Your task to perform on an android device: turn on bluetooth scan Image 0: 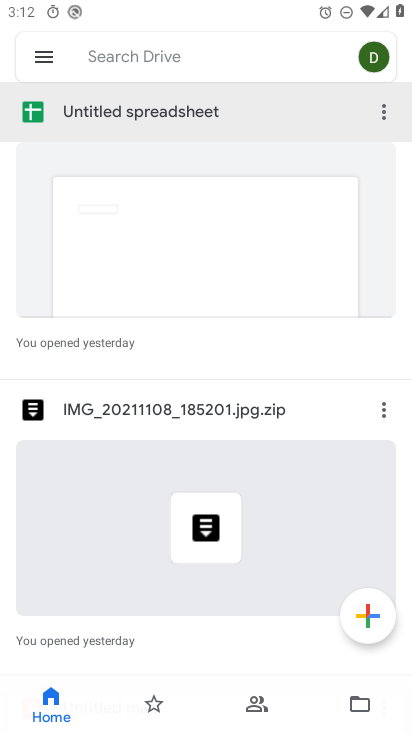
Step 0: press home button
Your task to perform on an android device: turn on bluetooth scan Image 1: 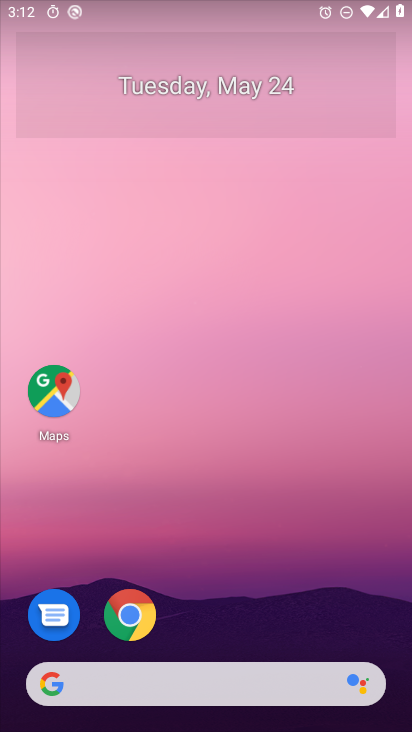
Step 1: drag from (174, 660) to (271, 89)
Your task to perform on an android device: turn on bluetooth scan Image 2: 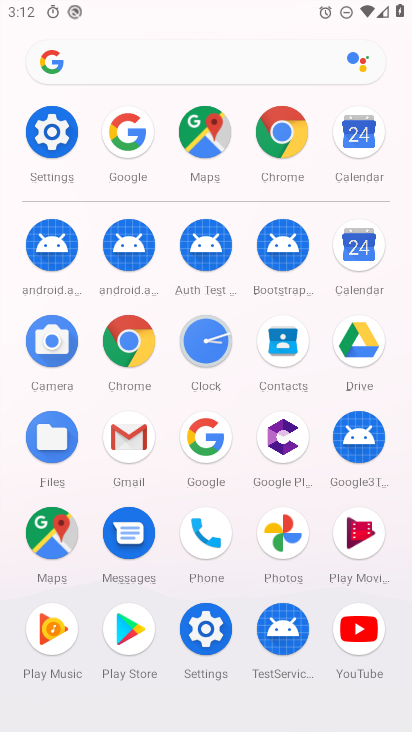
Step 2: click (55, 133)
Your task to perform on an android device: turn on bluetooth scan Image 3: 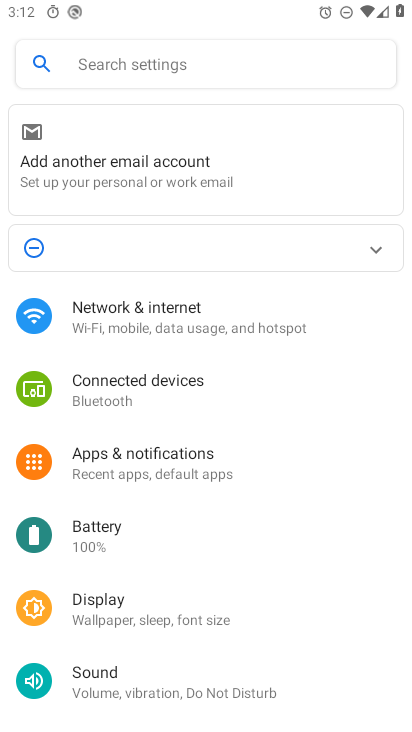
Step 3: drag from (151, 683) to (237, 332)
Your task to perform on an android device: turn on bluetooth scan Image 4: 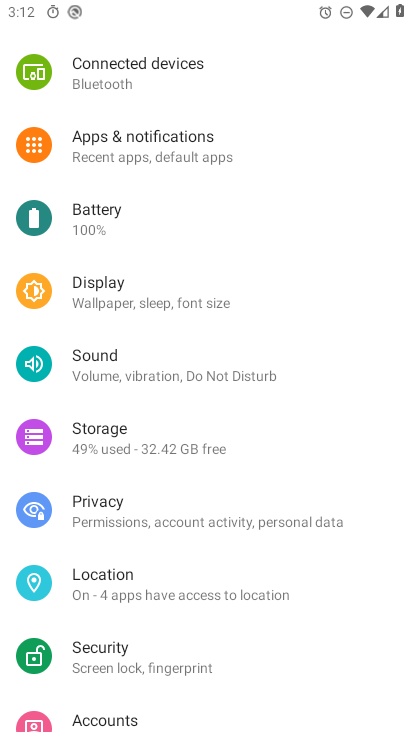
Step 4: drag from (99, 708) to (176, 234)
Your task to perform on an android device: turn on bluetooth scan Image 5: 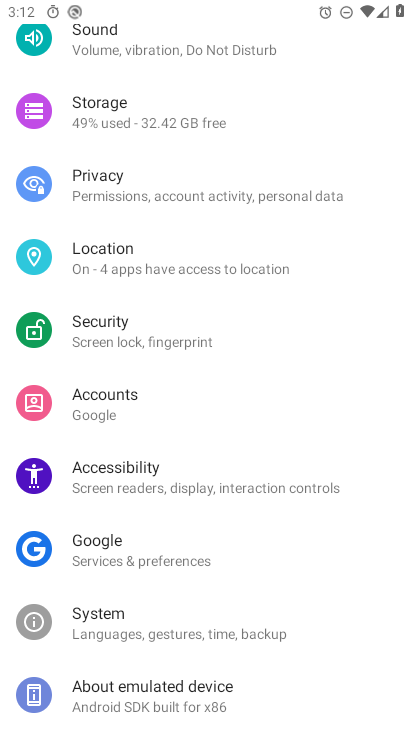
Step 5: click (107, 251)
Your task to perform on an android device: turn on bluetooth scan Image 6: 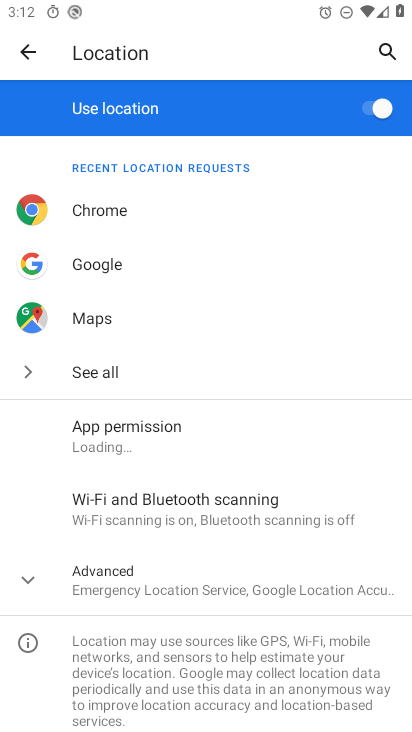
Step 6: click (118, 509)
Your task to perform on an android device: turn on bluetooth scan Image 7: 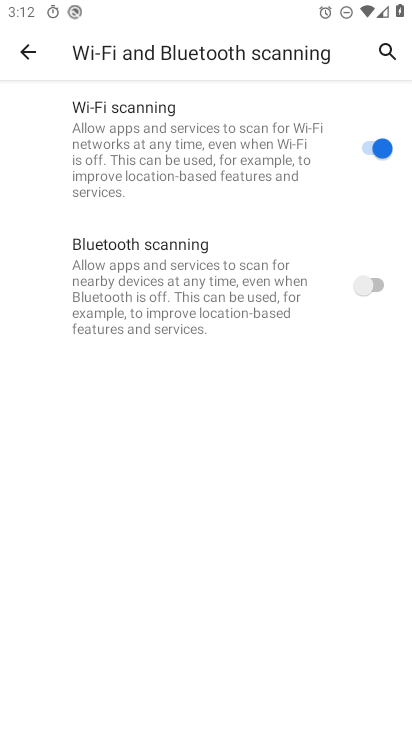
Step 7: click (377, 285)
Your task to perform on an android device: turn on bluetooth scan Image 8: 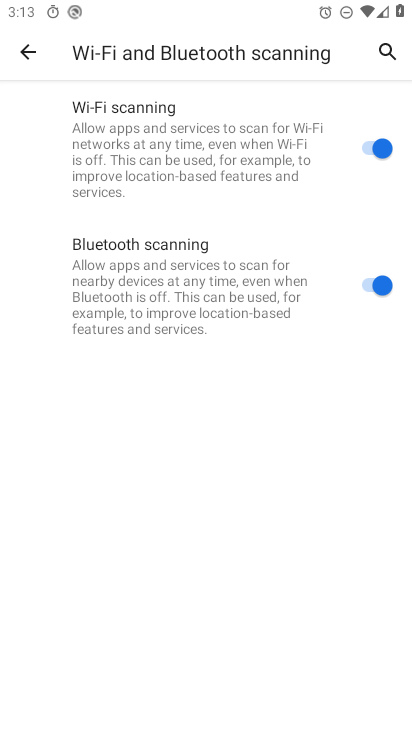
Step 8: task complete